Your task to perform on an android device: Go to Maps Image 0: 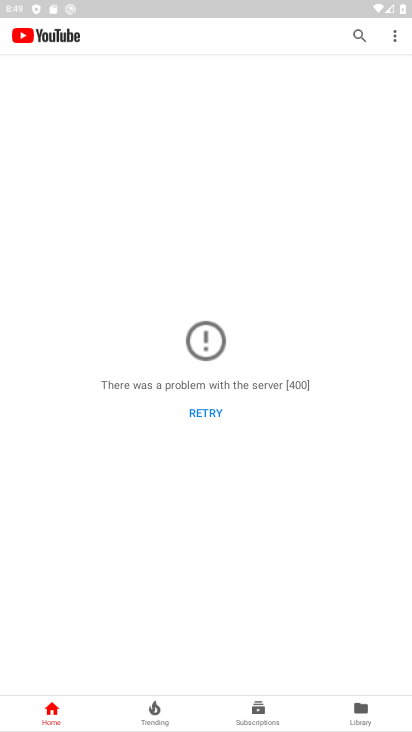
Step 0: click (45, 414)
Your task to perform on an android device: Go to Maps Image 1: 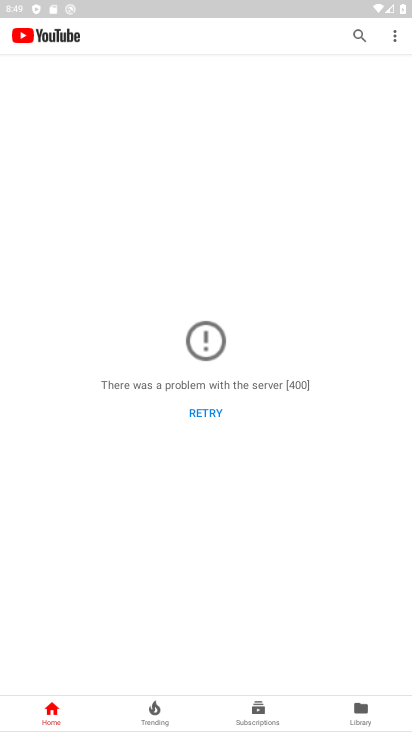
Step 1: press home button
Your task to perform on an android device: Go to Maps Image 2: 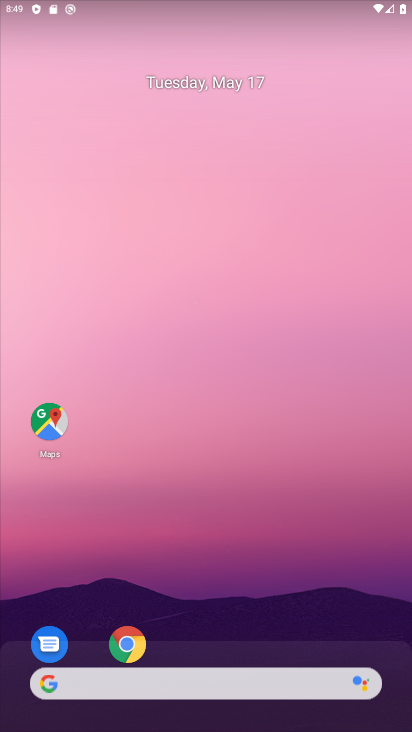
Step 2: click (47, 414)
Your task to perform on an android device: Go to Maps Image 3: 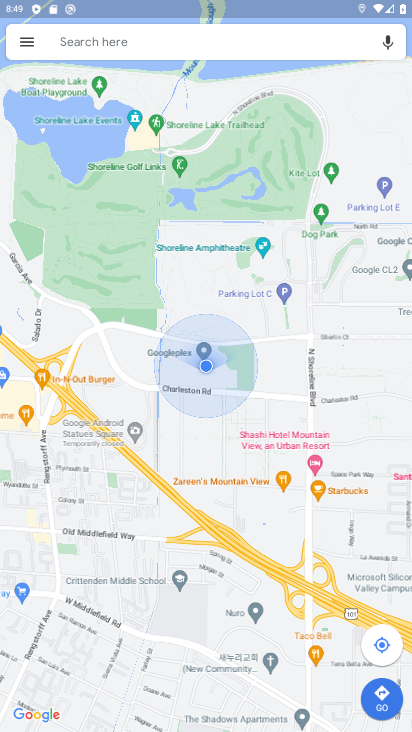
Step 3: task complete